Your task to perform on an android device: search for starred emails in the gmail app Image 0: 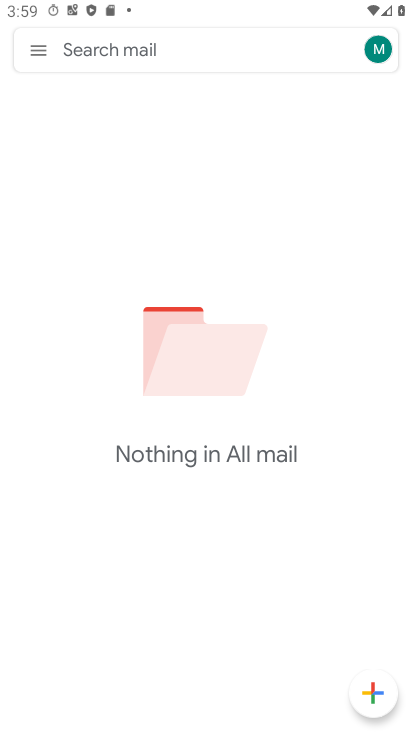
Step 0: click (39, 45)
Your task to perform on an android device: search for starred emails in the gmail app Image 1: 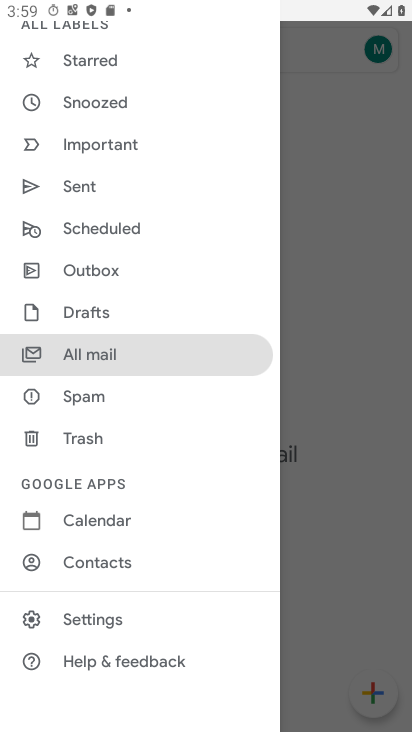
Step 1: click (104, 59)
Your task to perform on an android device: search for starred emails in the gmail app Image 2: 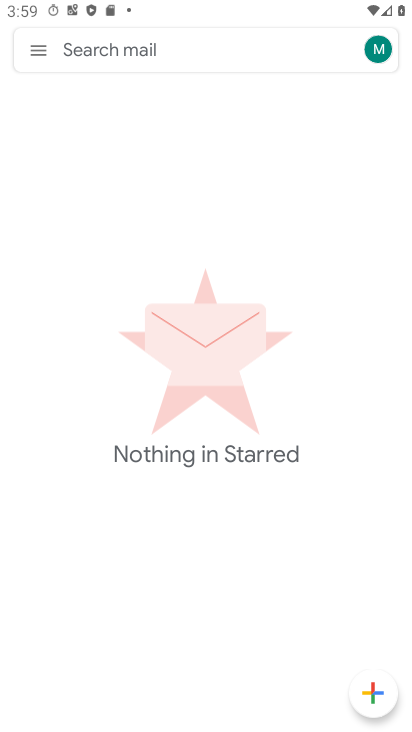
Step 2: task complete